Your task to perform on an android device: Go to Yahoo.com Image 0: 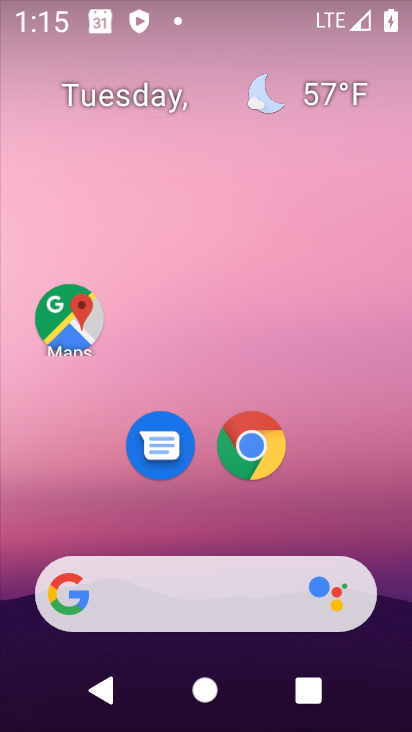
Step 0: drag from (366, 512) to (359, 173)
Your task to perform on an android device: Go to Yahoo.com Image 1: 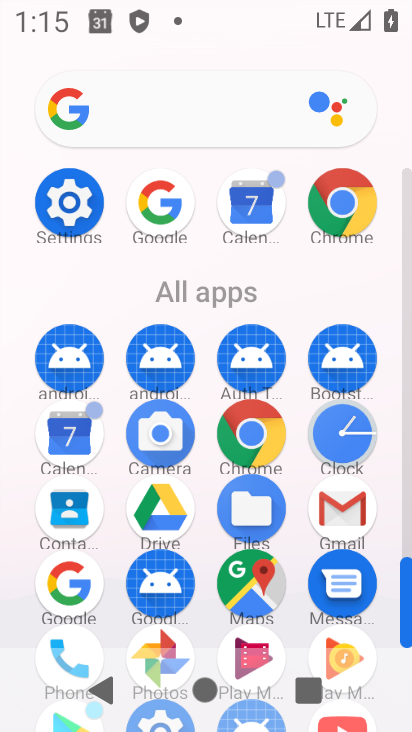
Step 1: click (257, 429)
Your task to perform on an android device: Go to Yahoo.com Image 2: 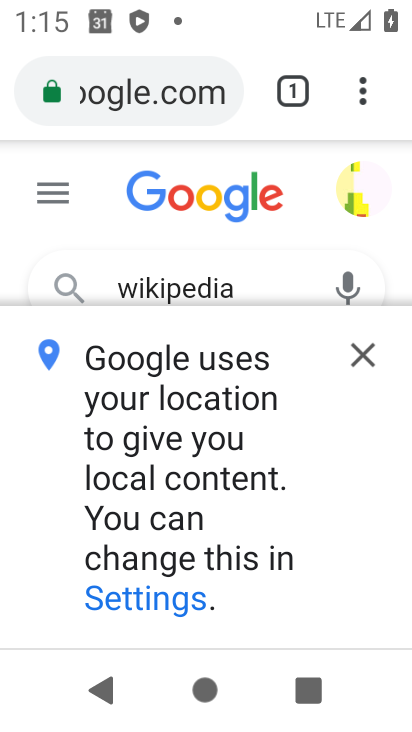
Step 2: click (209, 109)
Your task to perform on an android device: Go to Yahoo.com Image 3: 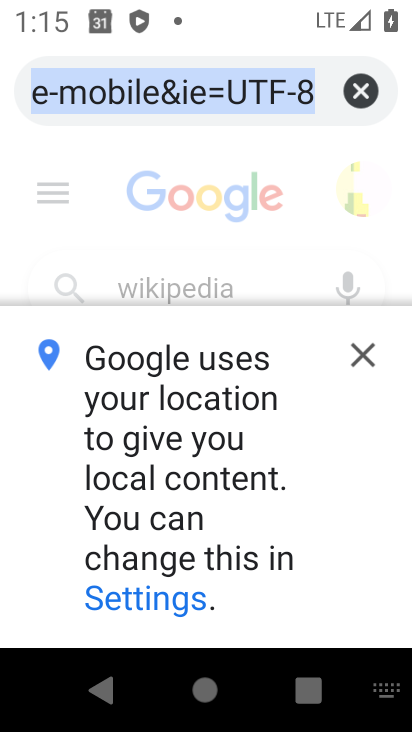
Step 3: click (366, 99)
Your task to perform on an android device: Go to Yahoo.com Image 4: 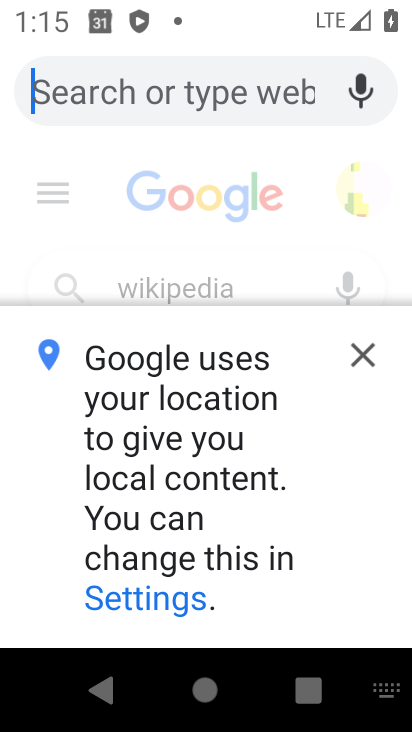
Step 4: type "yahoo.com"
Your task to perform on an android device: Go to Yahoo.com Image 5: 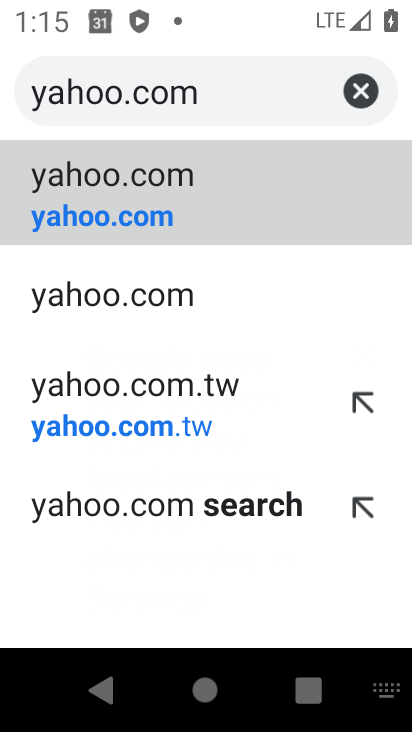
Step 5: click (287, 212)
Your task to perform on an android device: Go to Yahoo.com Image 6: 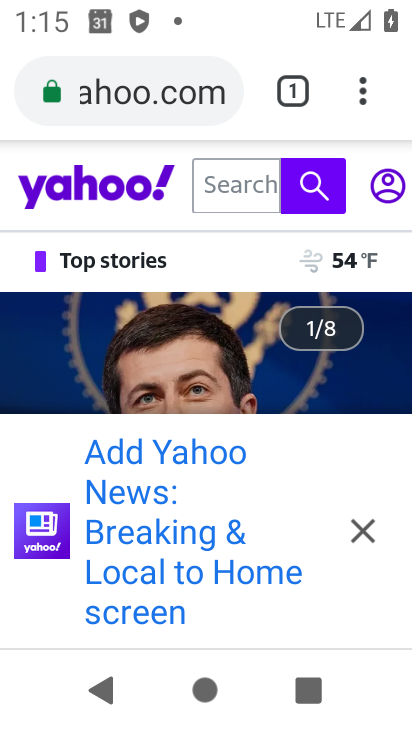
Step 6: task complete